Your task to perform on an android device: check storage Image 0: 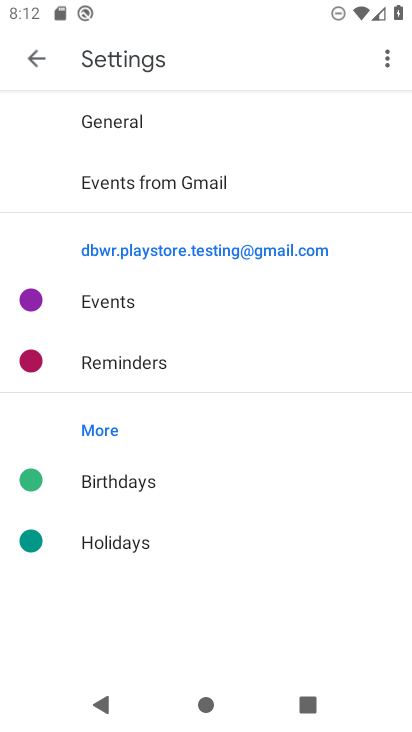
Step 0: press home button
Your task to perform on an android device: check storage Image 1: 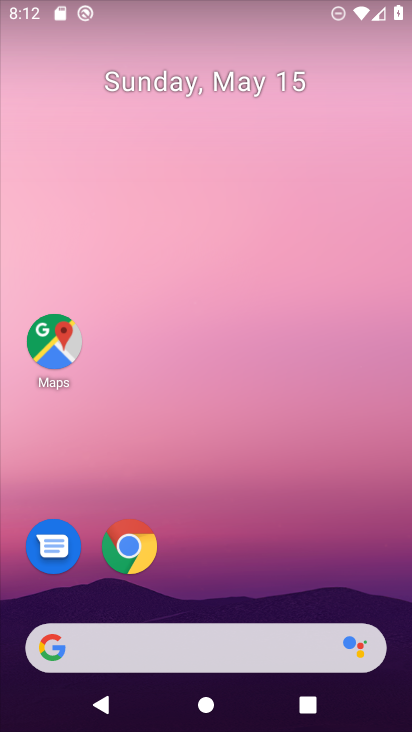
Step 1: drag from (252, 366) to (244, 63)
Your task to perform on an android device: check storage Image 2: 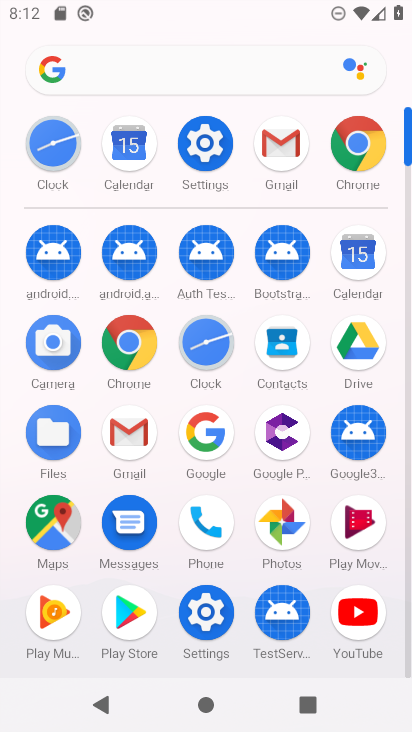
Step 2: click (198, 141)
Your task to perform on an android device: check storage Image 3: 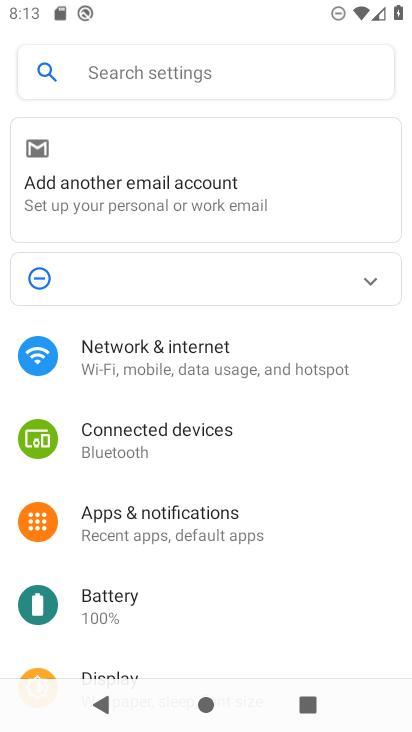
Step 3: drag from (167, 572) to (194, 76)
Your task to perform on an android device: check storage Image 4: 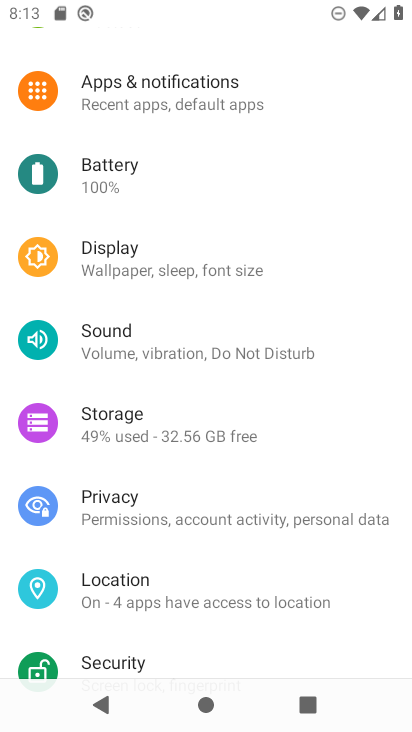
Step 4: click (159, 434)
Your task to perform on an android device: check storage Image 5: 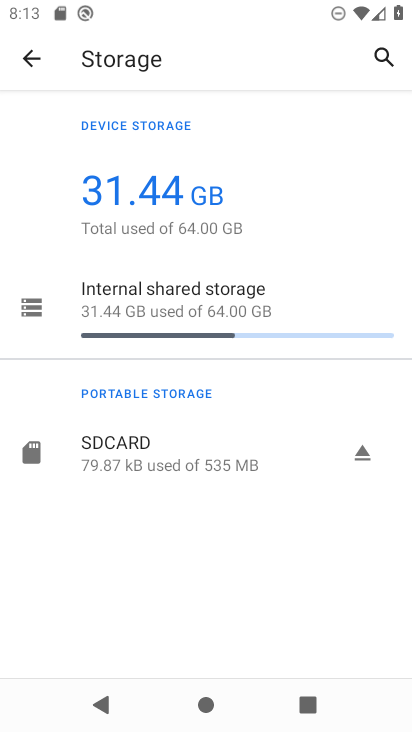
Step 5: task complete